Your task to perform on an android device: refresh tabs in the chrome app Image 0: 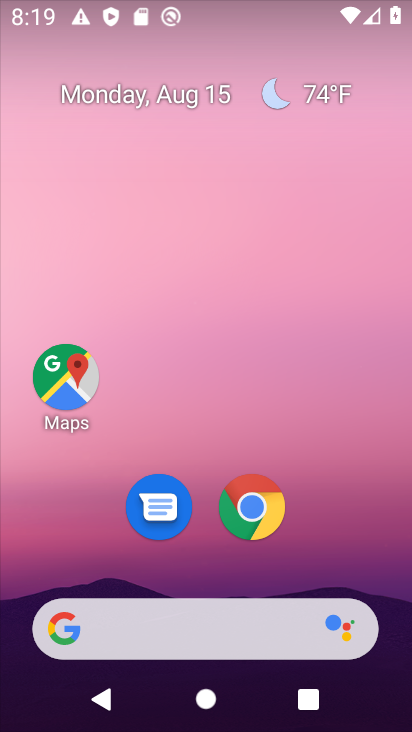
Step 0: drag from (216, 590) to (296, 0)
Your task to perform on an android device: refresh tabs in the chrome app Image 1: 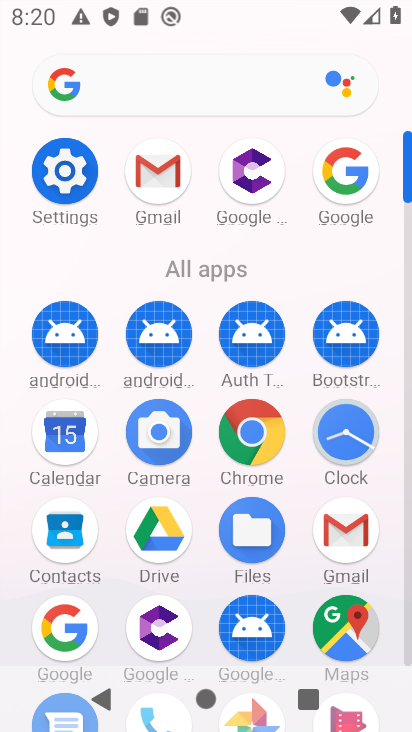
Step 1: click (264, 442)
Your task to perform on an android device: refresh tabs in the chrome app Image 2: 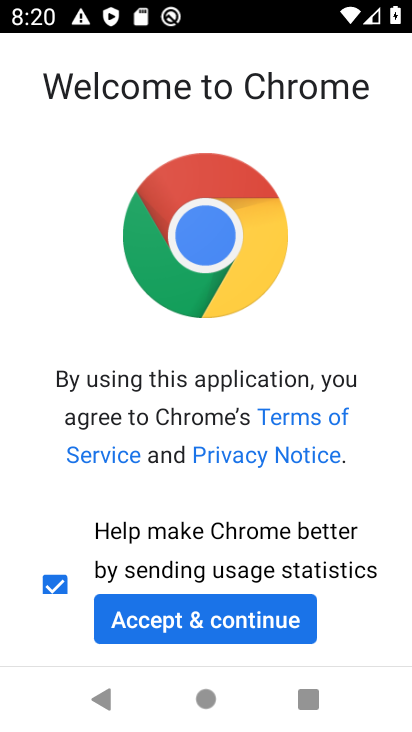
Step 2: click (248, 612)
Your task to perform on an android device: refresh tabs in the chrome app Image 3: 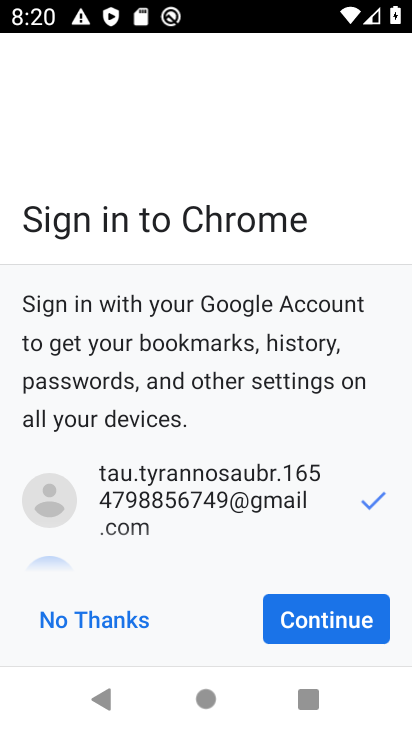
Step 3: click (122, 610)
Your task to perform on an android device: refresh tabs in the chrome app Image 4: 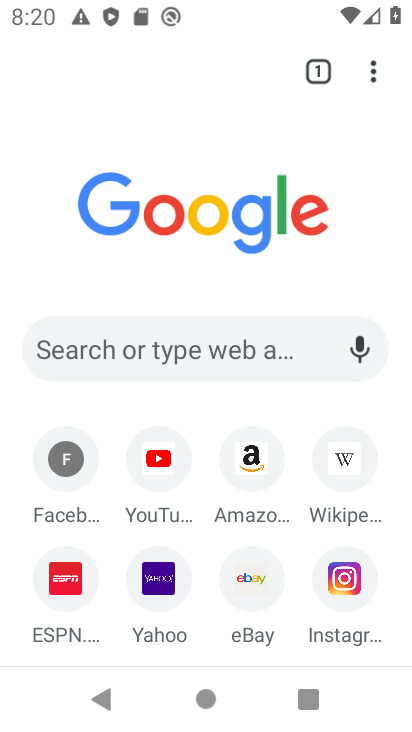
Step 4: click (378, 72)
Your task to perform on an android device: refresh tabs in the chrome app Image 5: 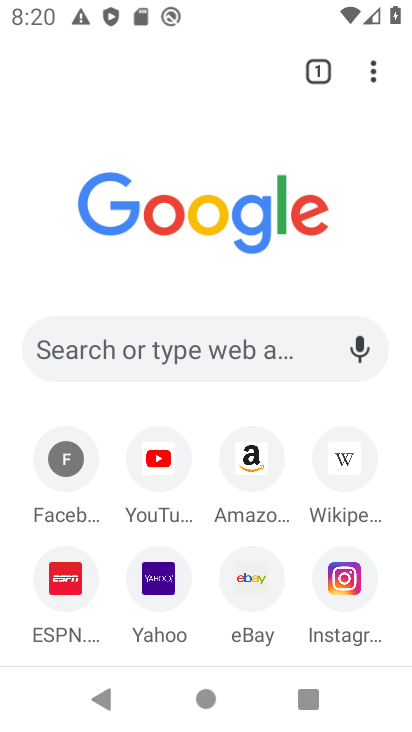
Step 5: task complete